Your task to perform on an android device: add a contact Image 0: 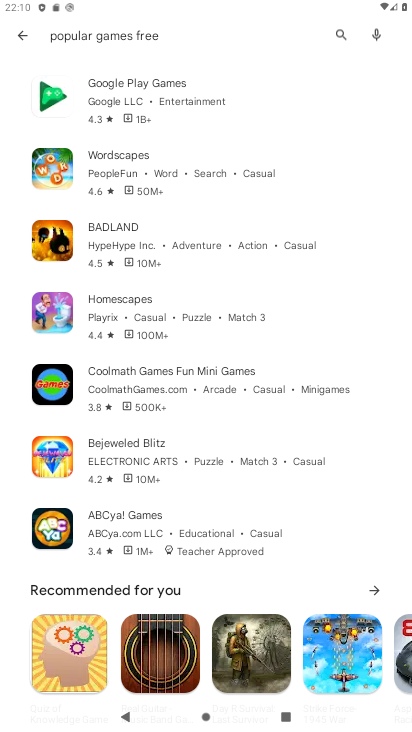
Step 0: press home button
Your task to perform on an android device: add a contact Image 1: 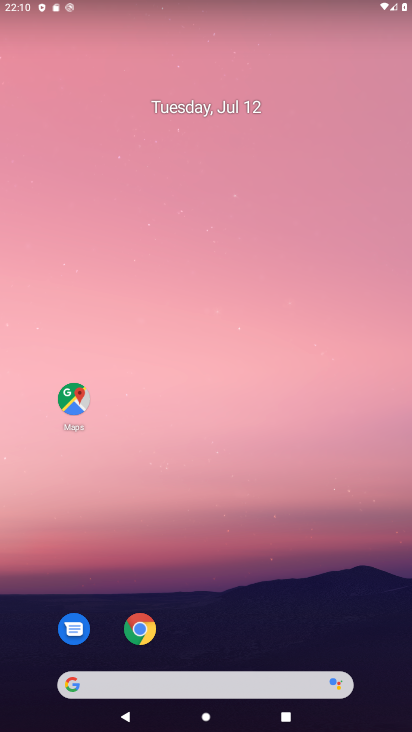
Step 1: drag from (289, 549) to (306, 43)
Your task to perform on an android device: add a contact Image 2: 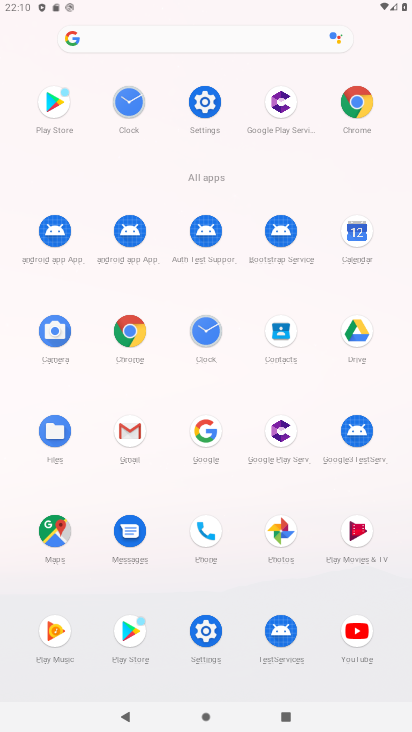
Step 2: click (278, 327)
Your task to perform on an android device: add a contact Image 3: 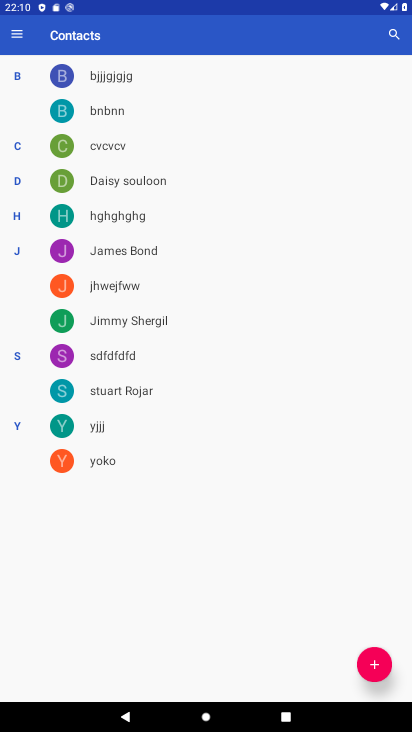
Step 3: click (375, 651)
Your task to perform on an android device: add a contact Image 4: 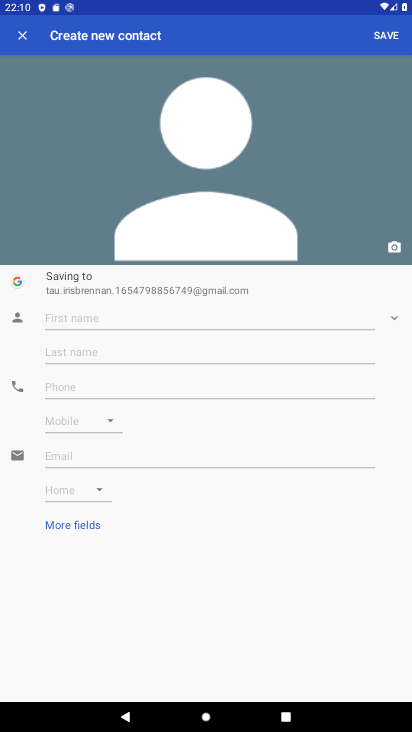
Step 4: click (69, 321)
Your task to perform on an android device: add a contact Image 5: 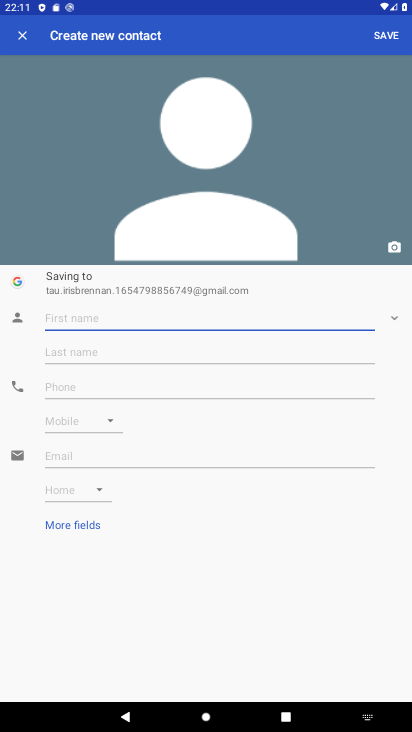
Step 5: type "hgkiu"
Your task to perform on an android device: add a contact Image 6: 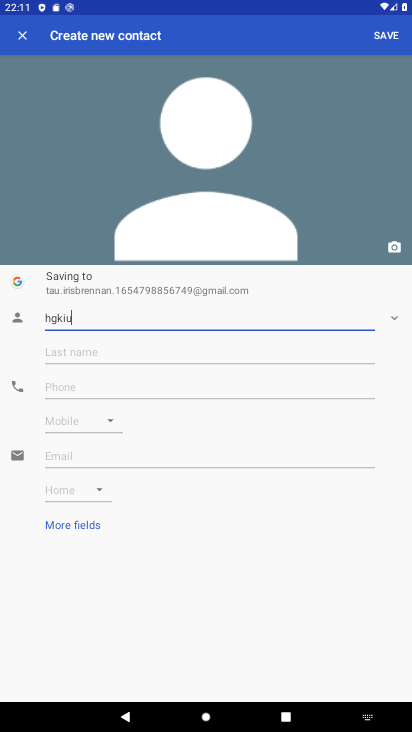
Step 6: click (58, 383)
Your task to perform on an android device: add a contact Image 7: 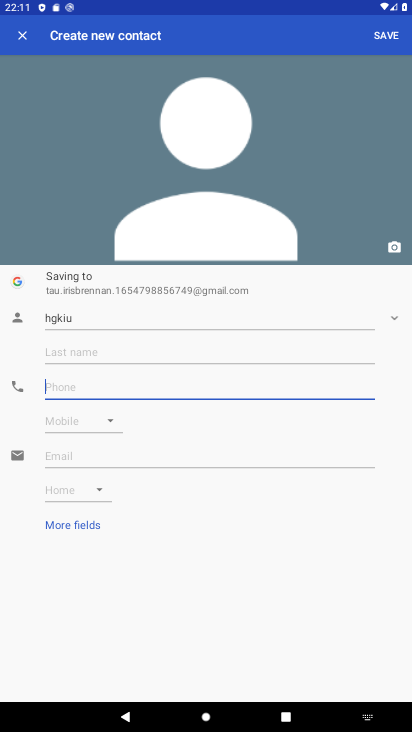
Step 7: type "0123"
Your task to perform on an android device: add a contact Image 8: 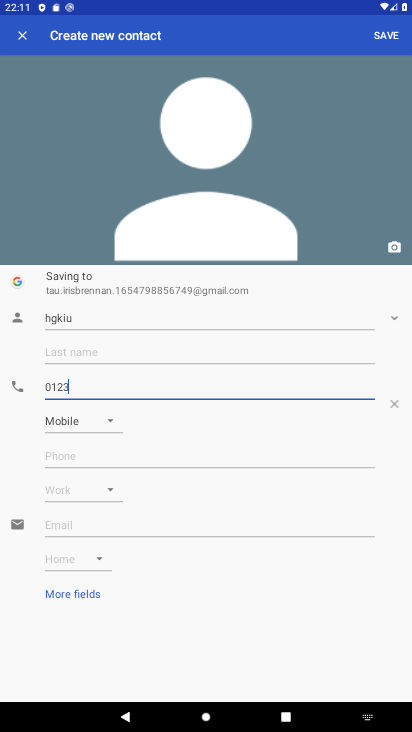
Step 8: task complete